Your task to perform on an android device: toggle location history Image 0: 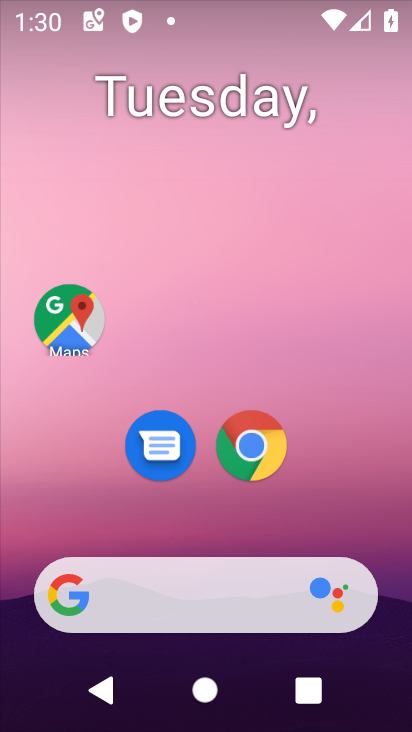
Step 0: drag from (396, 500) to (361, 73)
Your task to perform on an android device: toggle location history Image 1: 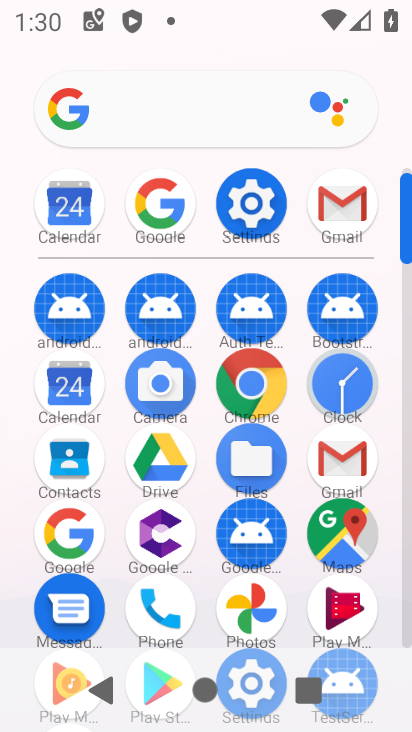
Step 1: click (248, 221)
Your task to perform on an android device: toggle location history Image 2: 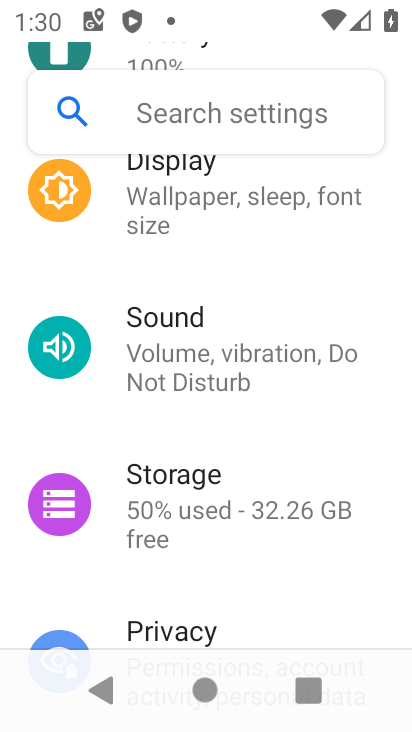
Step 2: drag from (249, 540) to (263, 131)
Your task to perform on an android device: toggle location history Image 3: 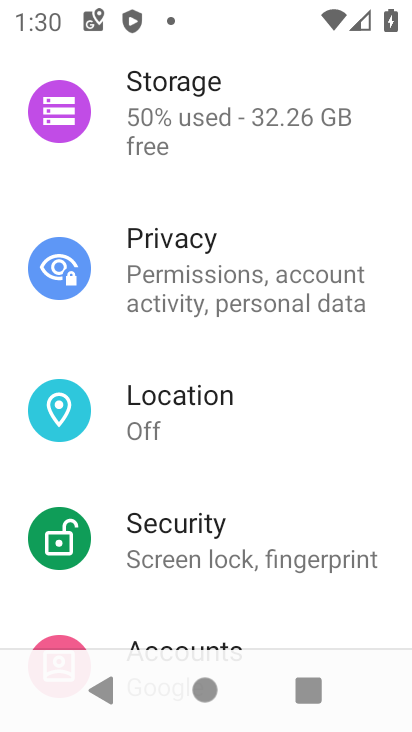
Step 3: click (167, 428)
Your task to perform on an android device: toggle location history Image 4: 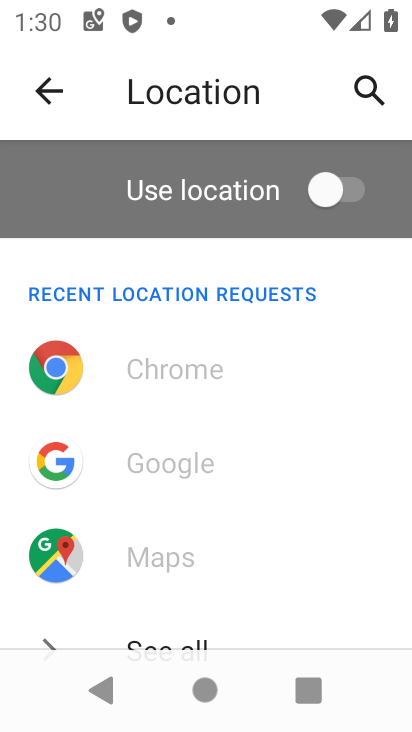
Step 4: drag from (227, 552) to (314, 154)
Your task to perform on an android device: toggle location history Image 5: 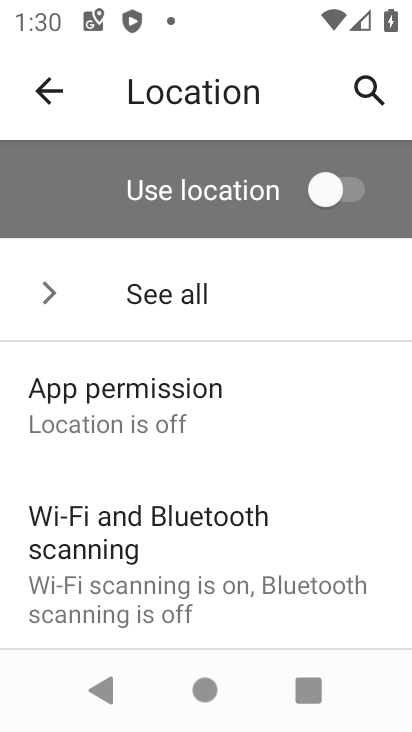
Step 5: drag from (247, 535) to (252, 243)
Your task to perform on an android device: toggle location history Image 6: 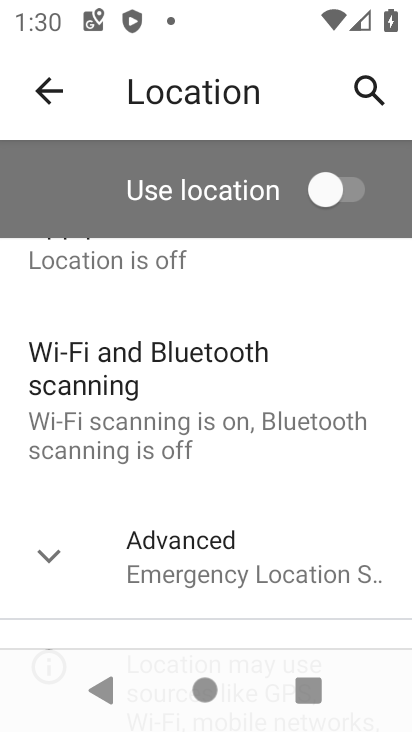
Step 6: drag from (194, 523) to (275, 228)
Your task to perform on an android device: toggle location history Image 7: 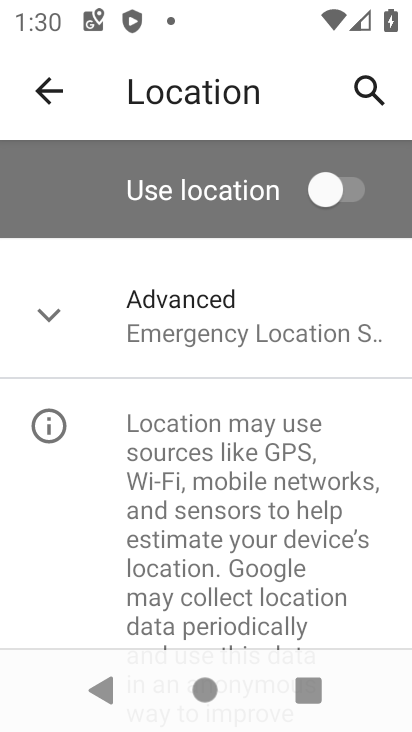
Step 7: click (186, 324)
Your task to perform on an android device: toggle location history Image 8: 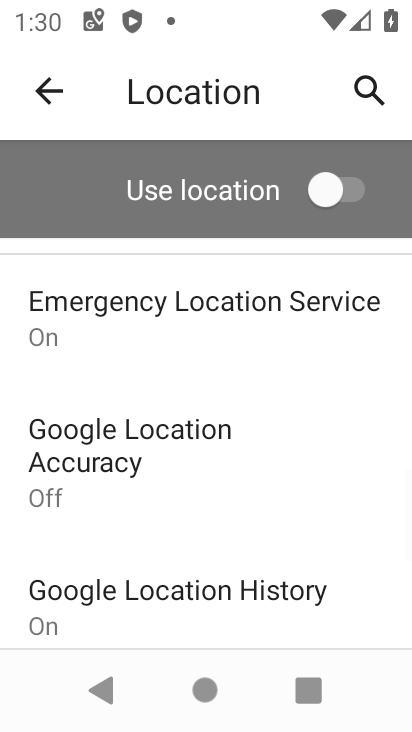
Step 8: drag from (243, 573) to (315, 248)
Your task to perform on an android device: toggle location history Image 9: 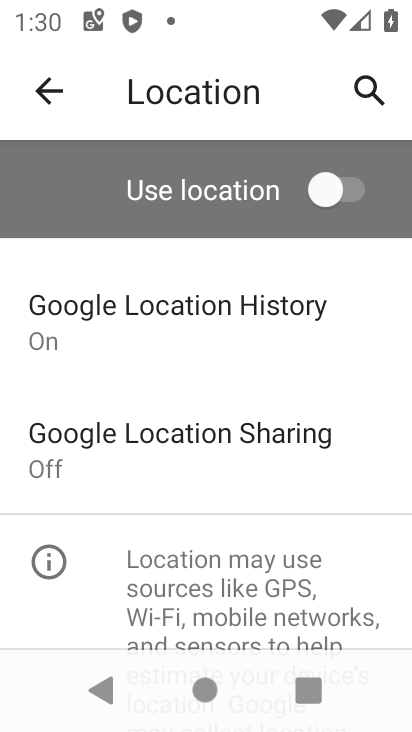
Step 9: click (258, 314)
Your task to perform on an android device: toggle location history Image 10: 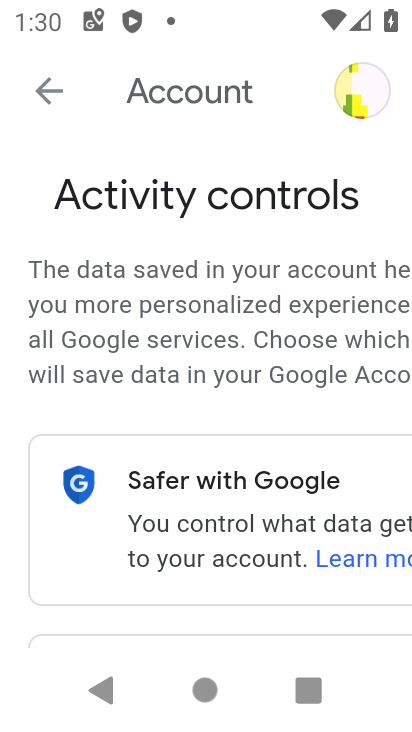
Step 10: drag from (253, 559) to (251, 136)
Your task to perform on an android device: toggle location history Image 11: 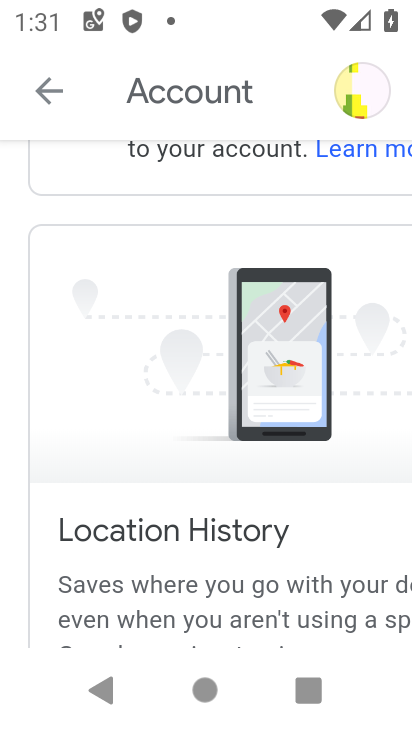
Step 11: drag from (253, 552) to (147, 585)
Your task to perform on an android device: toggle location history Image 12: 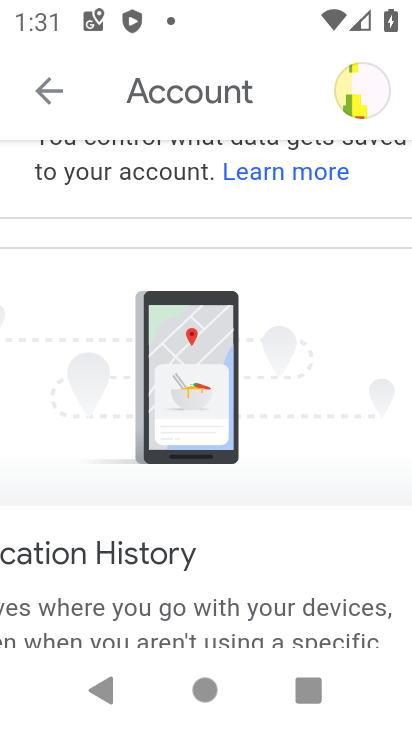
Step 12: drag from (270, 597) to (306, 147)
Your task to perform on an android device: toggle location history Image 13: 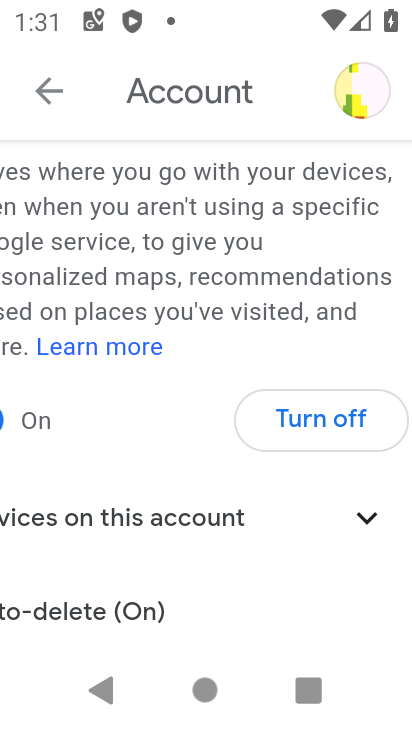
Step 13: click (308, 419)
Your task to perform on an android device: toggle location history Image 14: 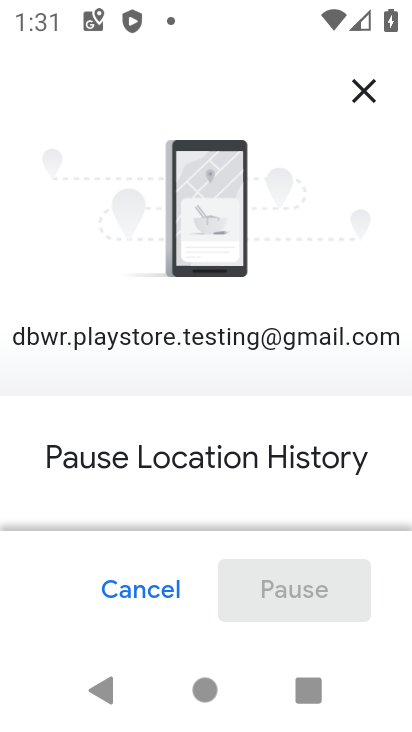
Step 14: drag from (284, 504) to (278, 32)
Your task to perform on an android device: toggle location history Image 15: 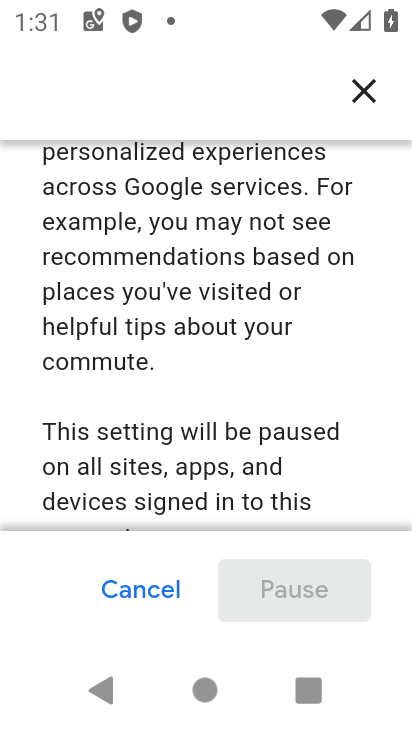
Step 15: drag from (252, 439) to (282, 52)
Your task to perform on an android device: toggle location history Image 16: 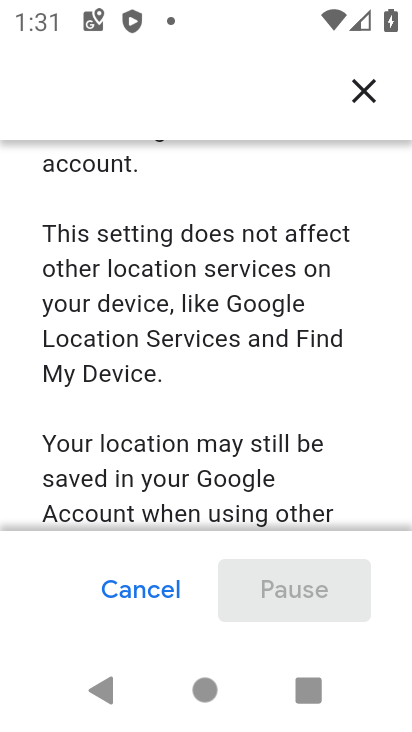
Step 16: drag from (249, 456) to (246, 22)
Your task to perform on an android device: toggle location history Image 17: 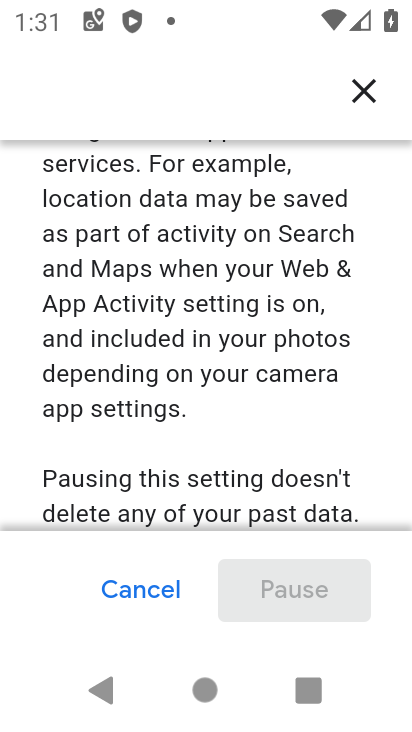
Step 17: drag from (221, 465) to (259, 41)
Your task to perform on an android device: toggle location history Image 18: 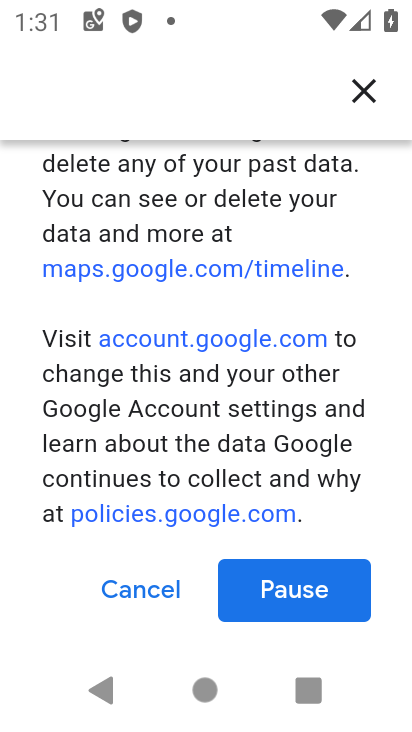
Step 18: drag from (248, 460) to (227, 130)
Your task to perform on an android device: toggle location history Image 19: 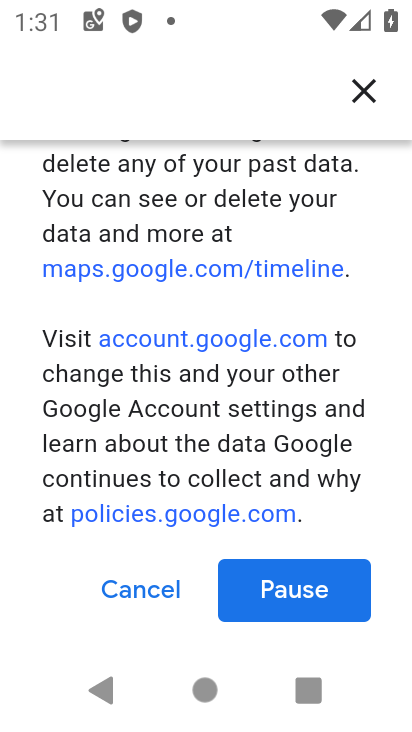
Step 19: click (261, 578)
Your task to perform on an android device: toggle location history Image 20: 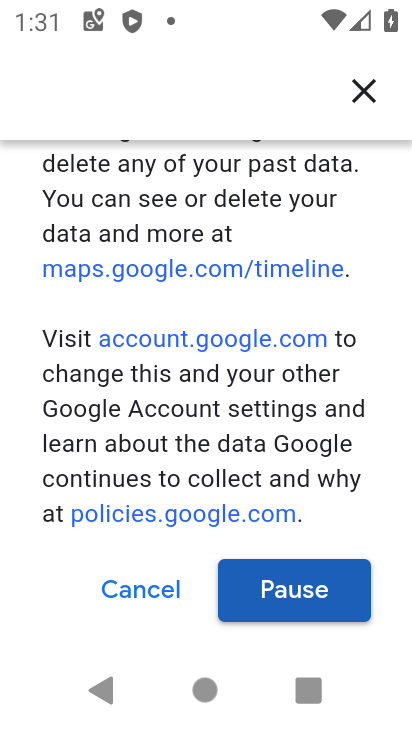
Step 20: click (273, 586)
Your task to perform on an android device: toggle location history Image 21: 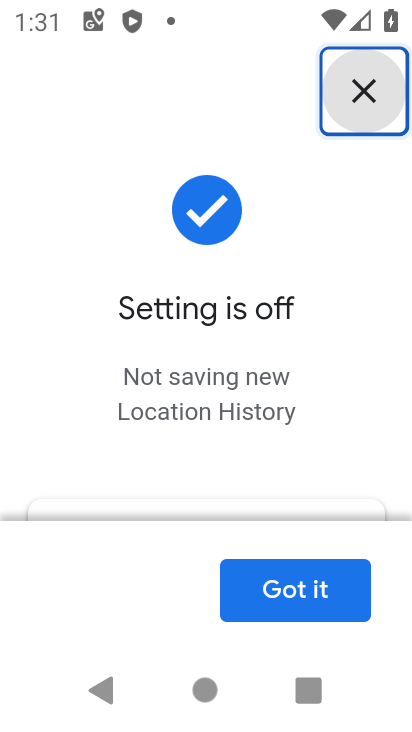
Step 21: click (273, 584)
Your task to perform on an android device: toggle location history Image 22: 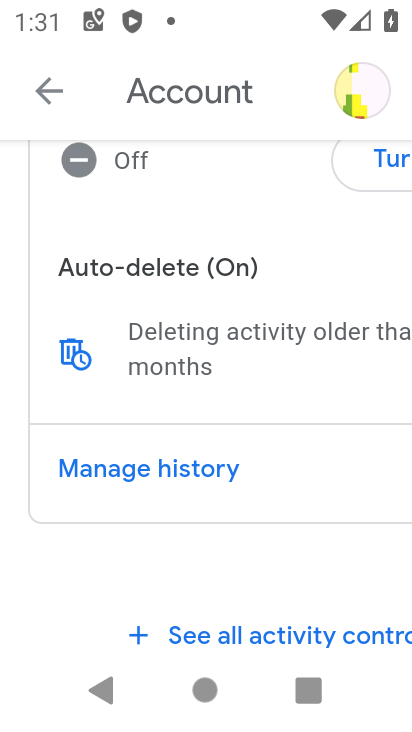
Step 22: task complete